Your task to perform on an android device: stop showing notifications on the lock screen Image 0: 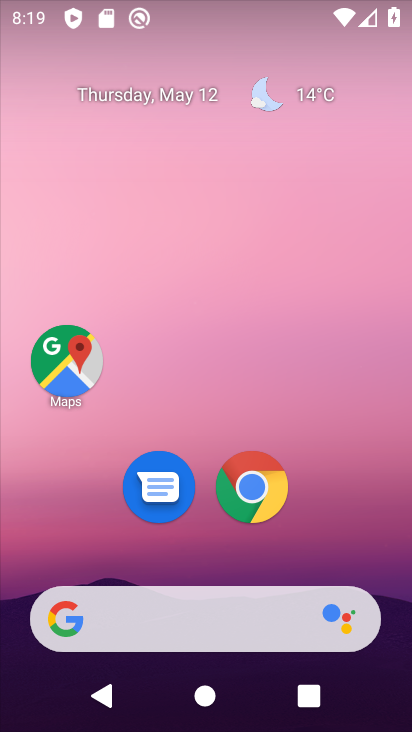
Step 0: drag from (62, 604) to (347, 214)
Your task to perform on an android device: stop showing notifications on the lock screen Image 1: 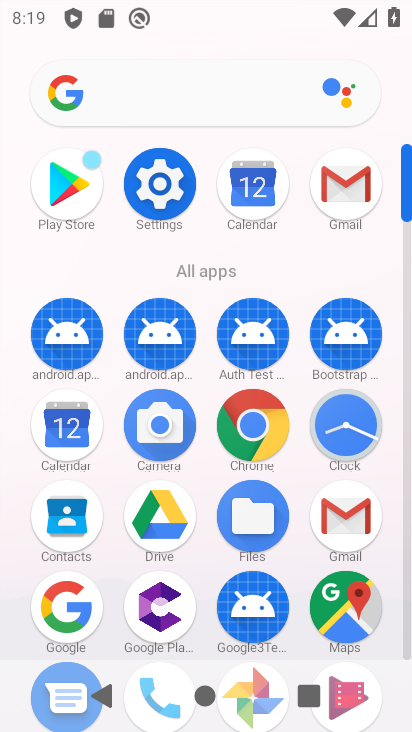
Step 1: click (135, 190)
Your task to perform on an android device: stop showing notifications on the lock screen Image 2: 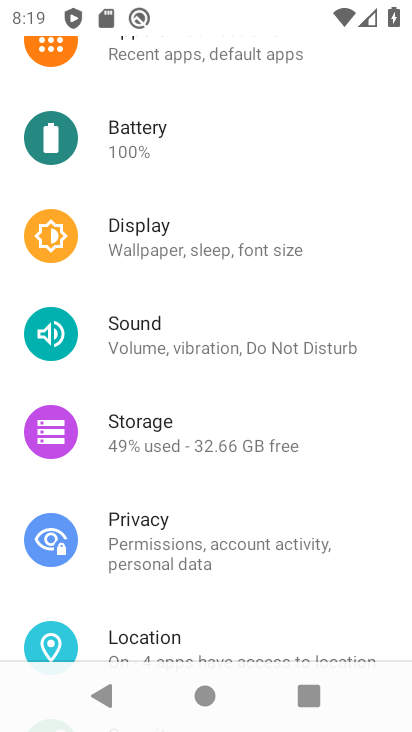
Step 2: drag from (157, 134) to (103, 597)
Your task to perform on an android device: stop showing notifications on the lock screen Image 3: 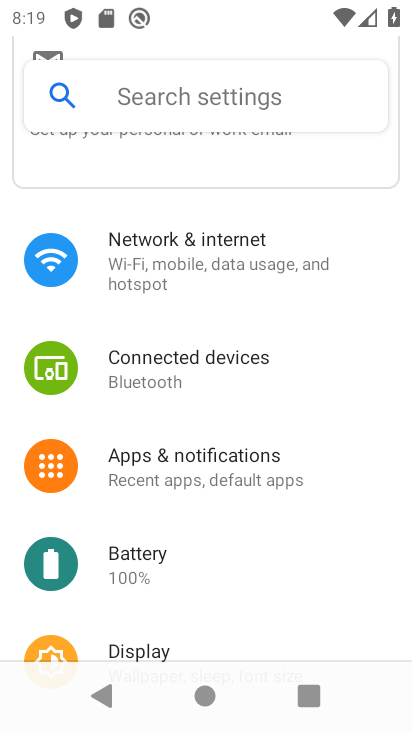
Step 3: click (130, 463)
Your task to perform on an android device: stop showing notifications on the lock screen Image 4: 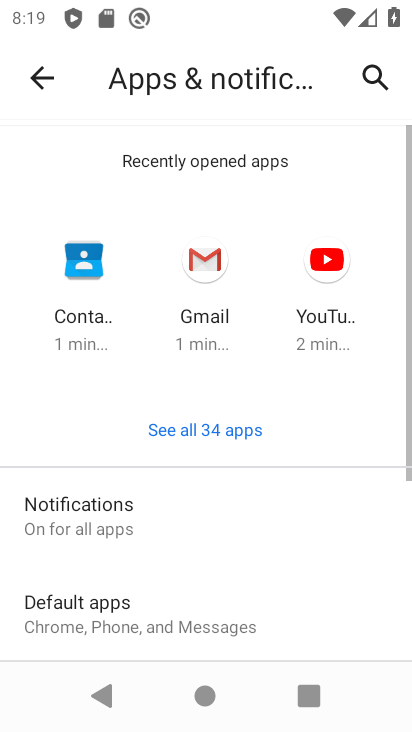
Step 4: click (43, 502)
Your task to perform on an android device: stop showing notifications on the lock screen Image 5: 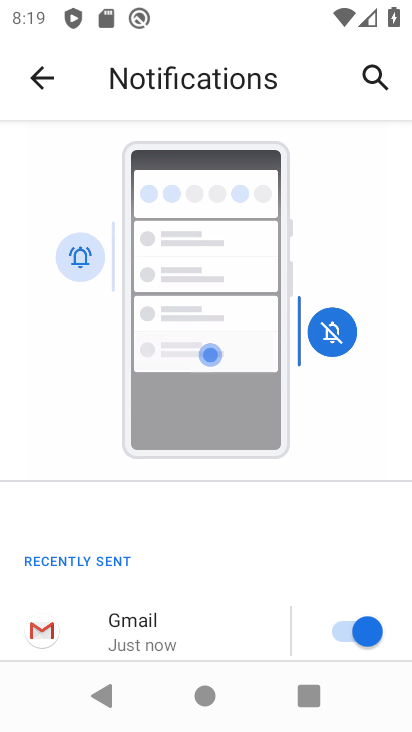
Step 5: drag from (30, 538) to (261, 126)
Your task to perform on an android device: stop showing notifications on the lock screen Image 6: 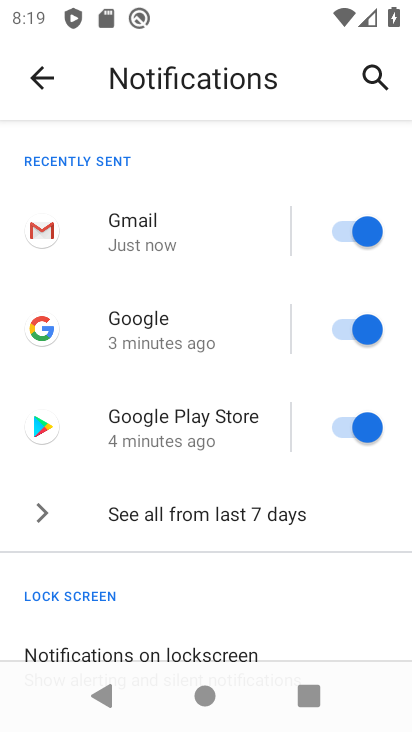
Step 6: click (104, 657)
Your task to perform on an android device: stop showing notifications on the lock screen Image 7: 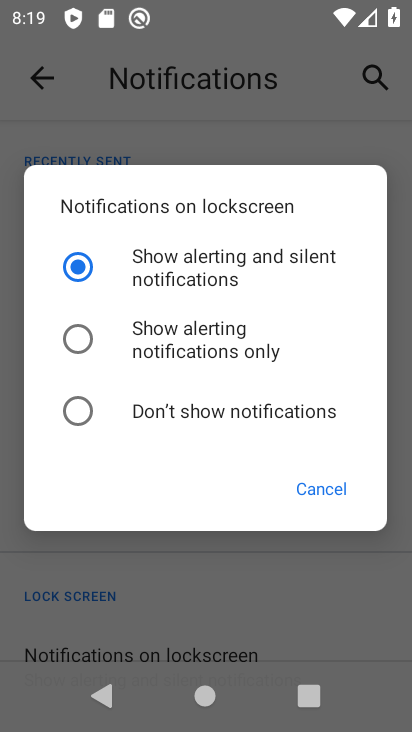
Step 7: click (91, 407)
Your task to perform on an android device: stop showing notifications on the lock screen Image 8: 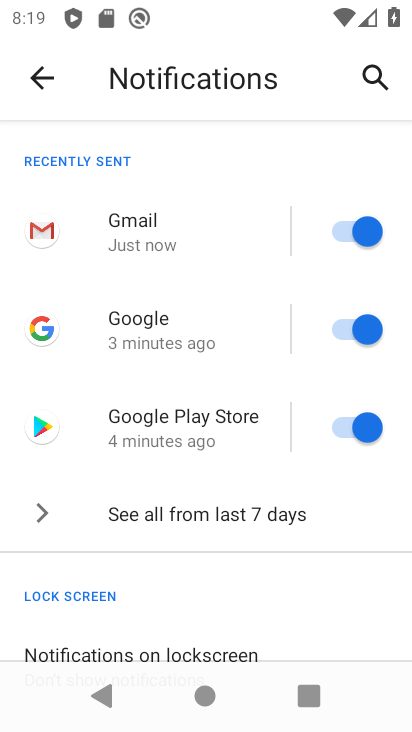
Step 8: task complete